Your task to perform on an android device: Is it going to rain tomorrow? Image 0: 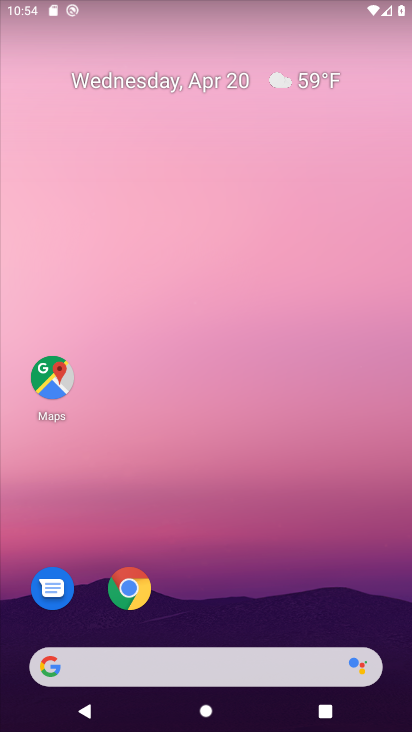
Step 0: click (310, 82)
Your task to perform on an android device: Is it going to rain tomorrow? Image 1: 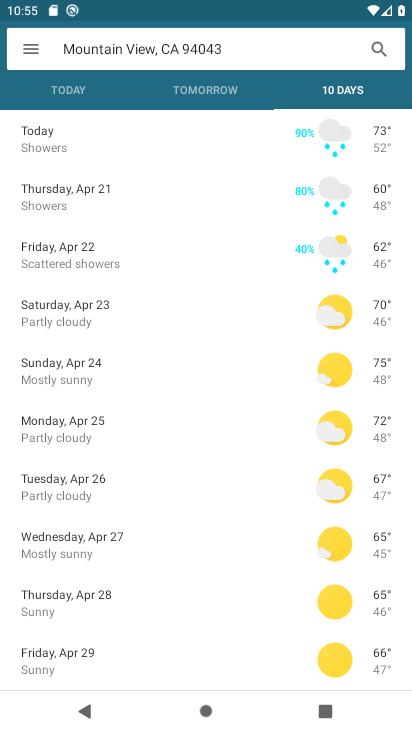
Step 1: click (206, 86)
Your task to perform on an android device: Is it going to rain tomorrow? Image 2: 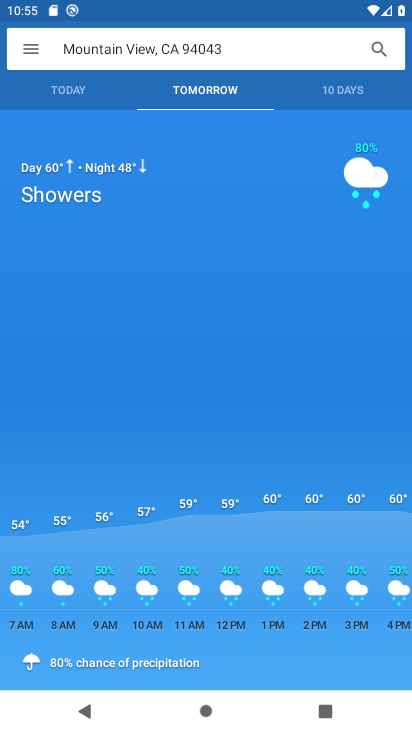
Step 2: task complete